Your task to perform on an android device: turn off sleep mode Image 0: 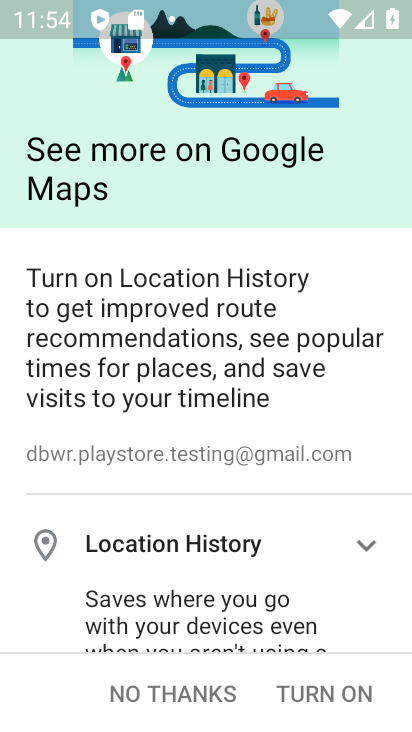
Step 0: press back button
Your task to perform on an android device: turn off sleep mode Image 1: 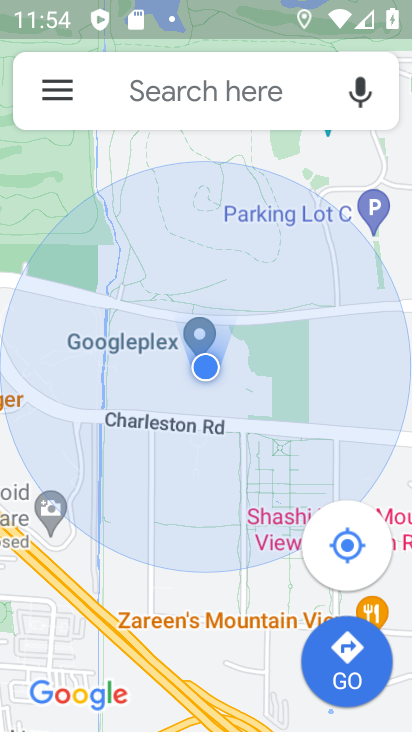
Step 1: press back button
Your task to perform on an android device: turn off sleep mode Image 2: 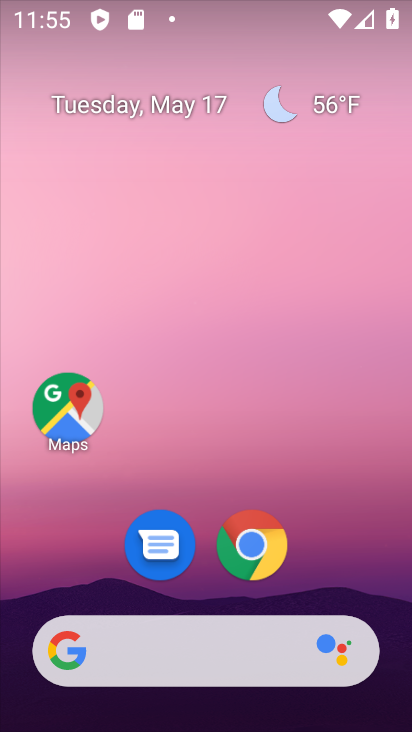
Step 2: drag from (341, 565) to (231, 77)
Your task to perform on an android device: turn off sleep mode Image 3: 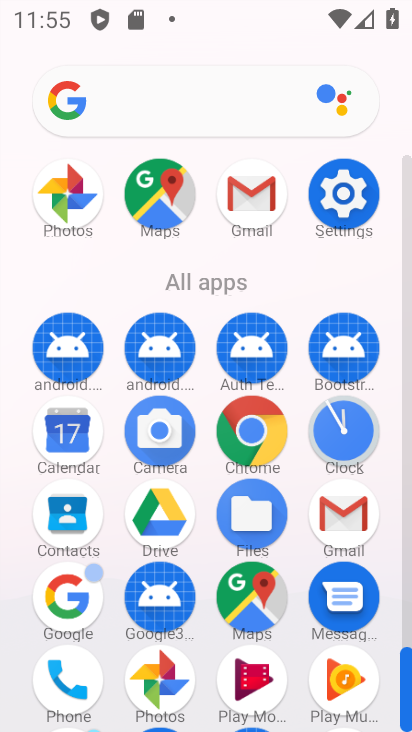
Step 3: click (342, 193)
Your task to perform on an android device: turn off sleep mode Image 4: 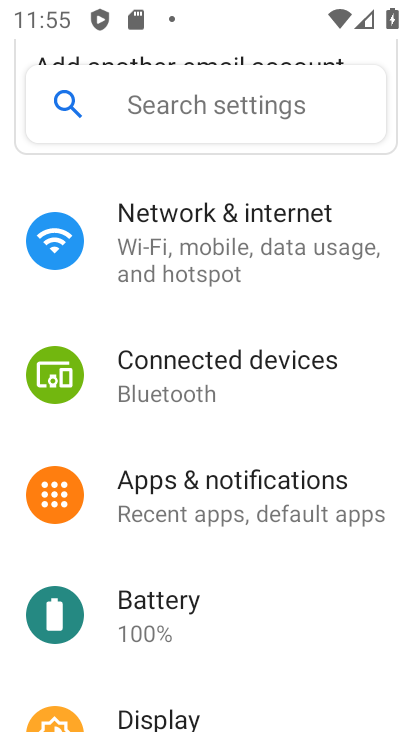
Step 4: drag from (209, 544) to (278, 424)
Your task to perform on an android device: turn off sleep mode Image 5: 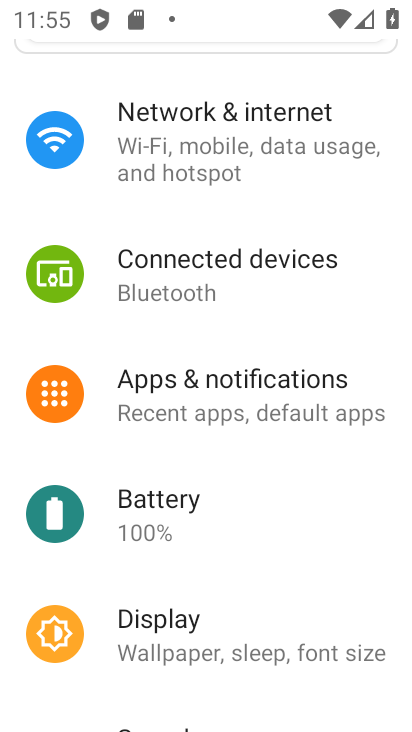
Step 5: drag from (228, 589) to (291, 451)
Your task to perform on an android device: turn off sleep mode Image 6: 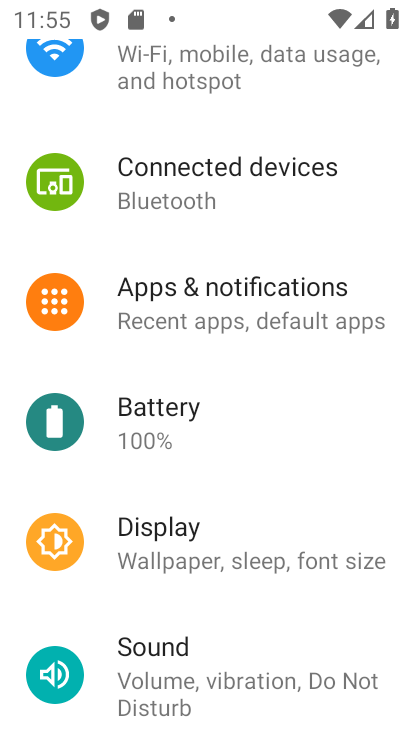
Step 6: click (203, 549)
Your task to perform on an android device: turn off sleep mode Image 7: 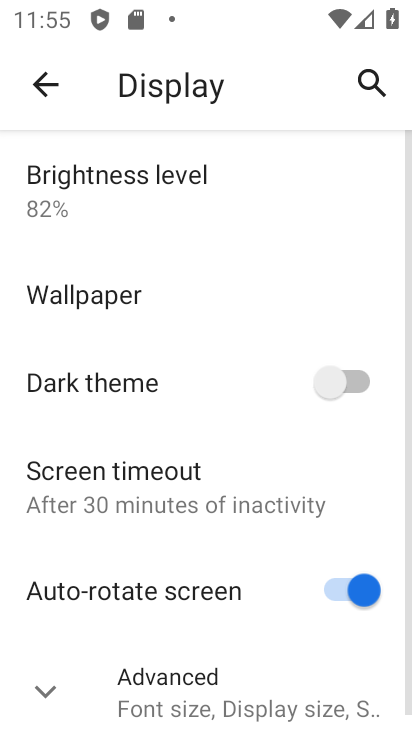
Step 7: drag from (212, 430) to (258, 336)
Your task to perform on an android device: turn off sleep mode Image 8: 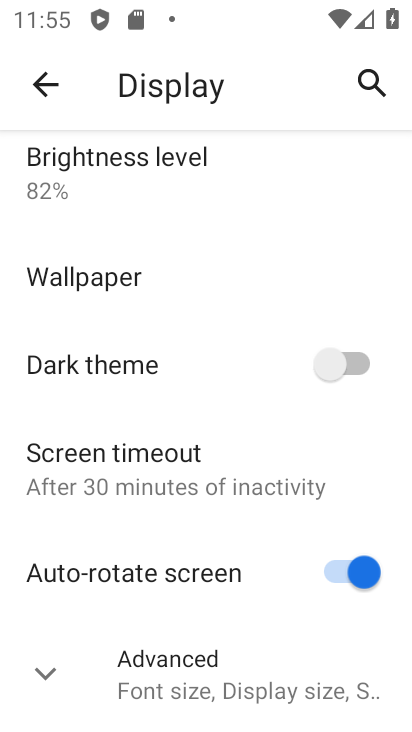
Step 8: click (188, 674)
Your task to perform on an android device: turn off sleep mode Image 9: 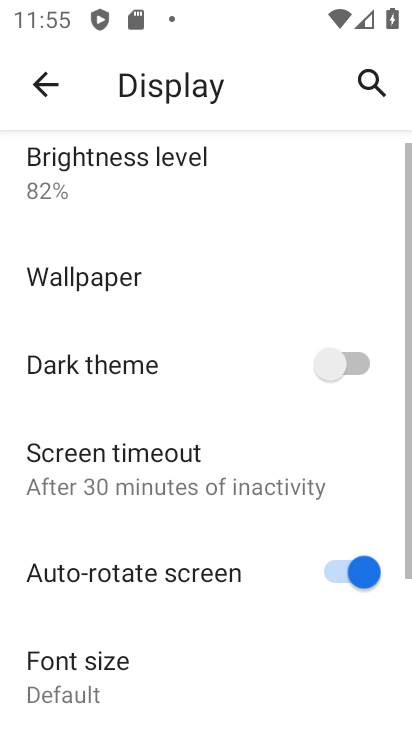
Step 9: drag from (185, 671) to (217, 441)
Your task to perform on an android device: turn off sleep mode Image 10: 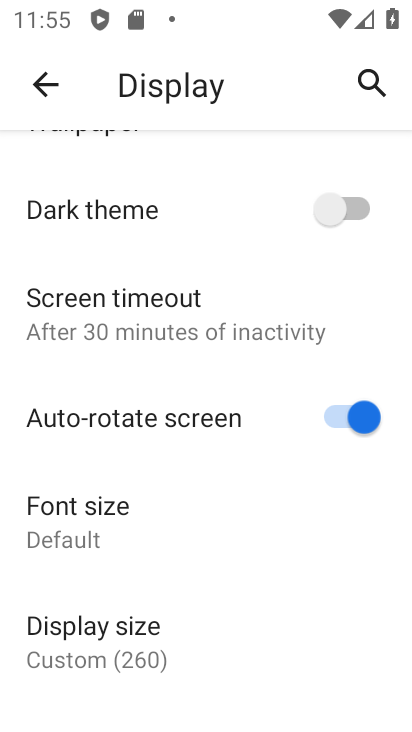
Step 10: drag from (192, 602) to (192, 474)
Your task to perform on an android device: turn off sleep mode Image 11: 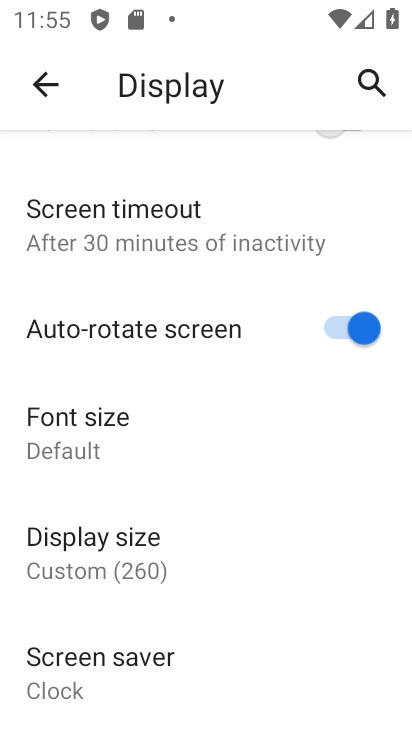
Step 11: click (48, 89)
Your task to perform on an android device: turn off sleep mode Image 12: 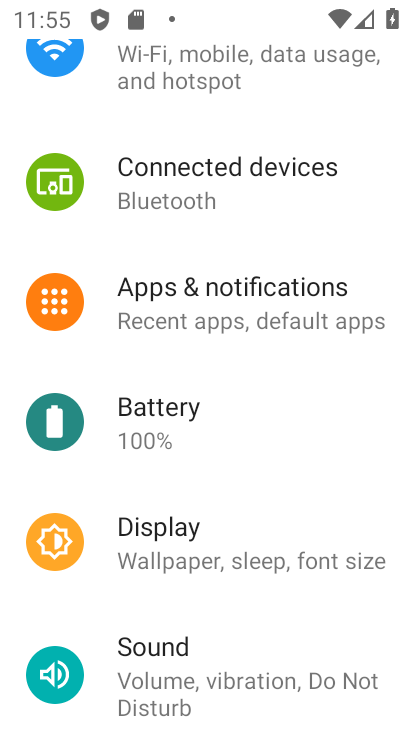
Step 12: task complete